Your task to perform on an android device: Add corsair k70 to the cart on bestbuy.com, then select checkout. Image 0: 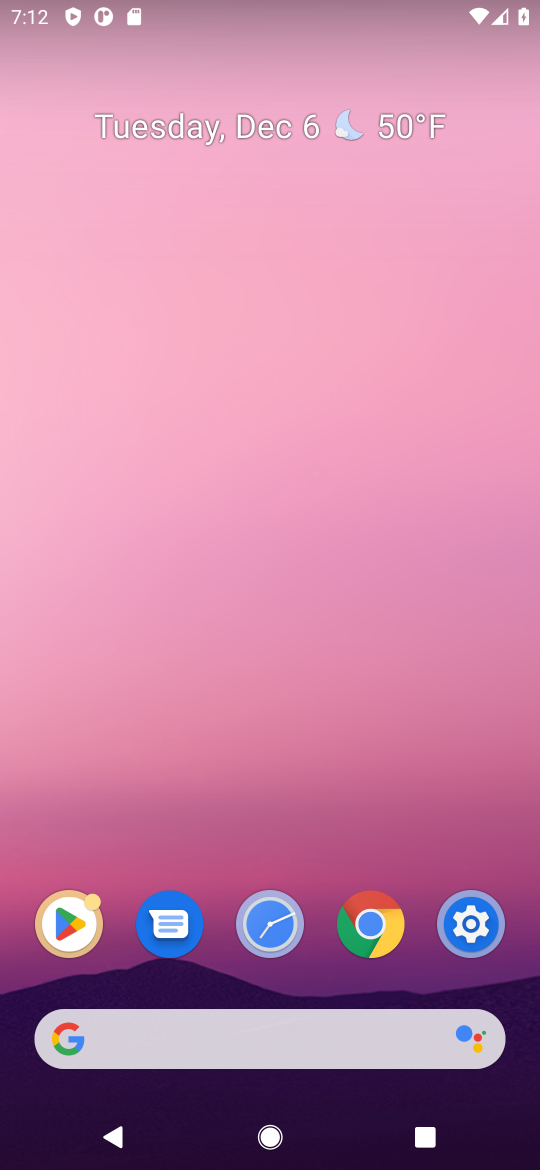
Step 0: click (227, 1037)
Your task to perform on an android device: Add corsair k70 to the cart on bestbuy.com, then select checkout. Image 1: 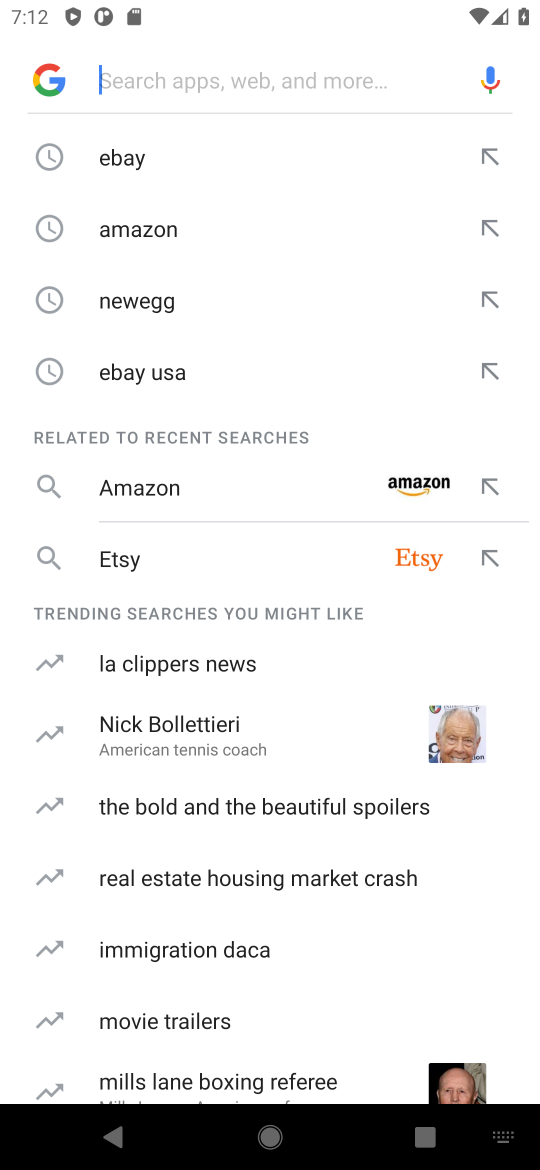
Step 1: type "bestbuy"
Your task to perform on an android device: Add corsair k70 to the cart on bestbuy.com, then select checkout. Image 2: 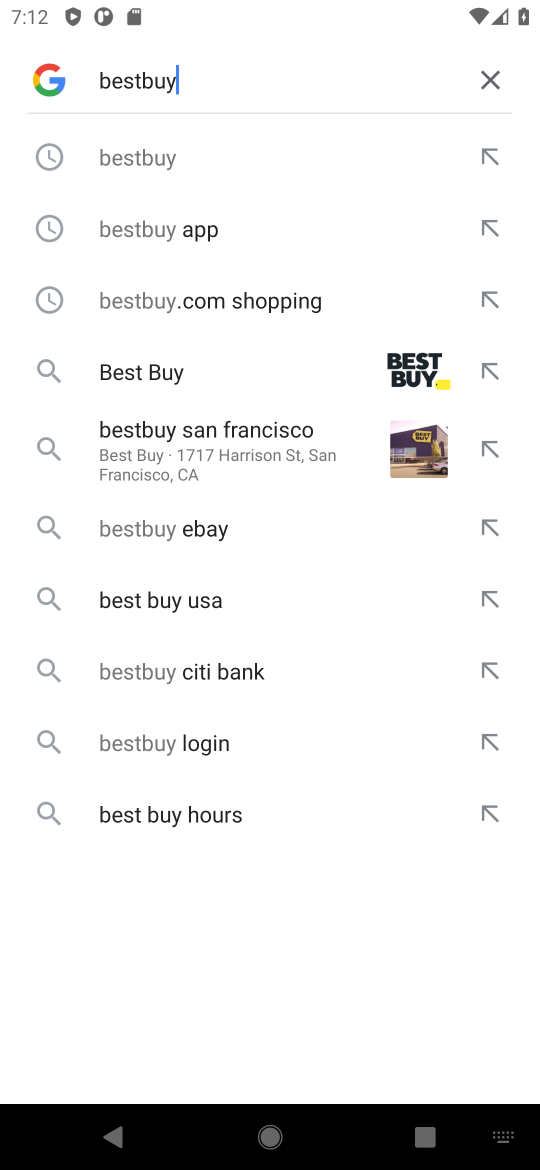
Step 2: click (90, 153)
Your task to perform on an android device: Add corsair k70 to the cart on bestbuy.com, then select checkout. Image 3: 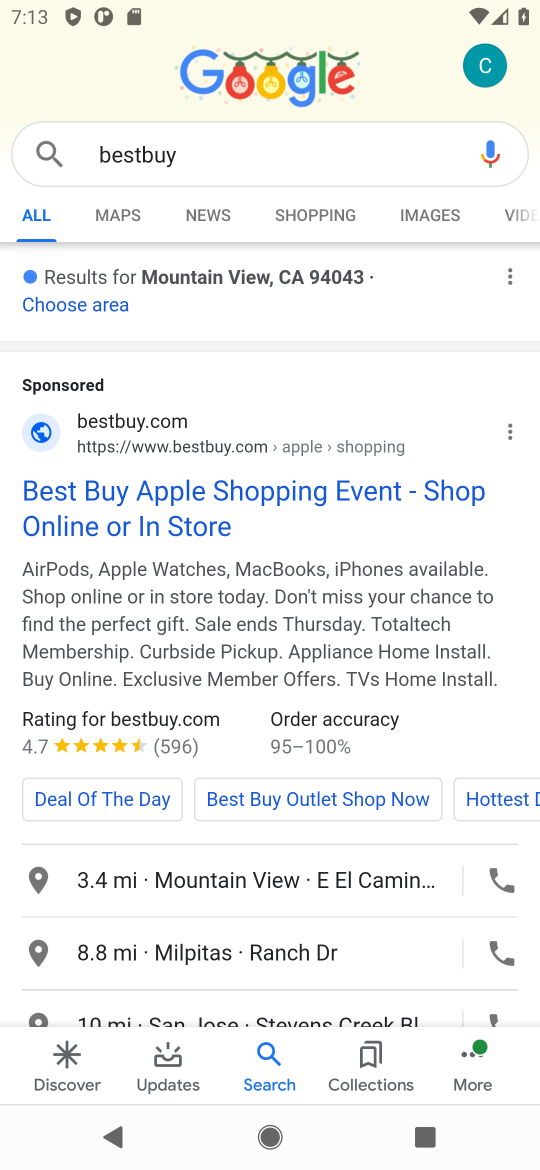
Step 3: click (219, 479)
Your task to perform on an android device: Add corsair k70 to the cart on bestbuy.com, then select checkout. Image 4: 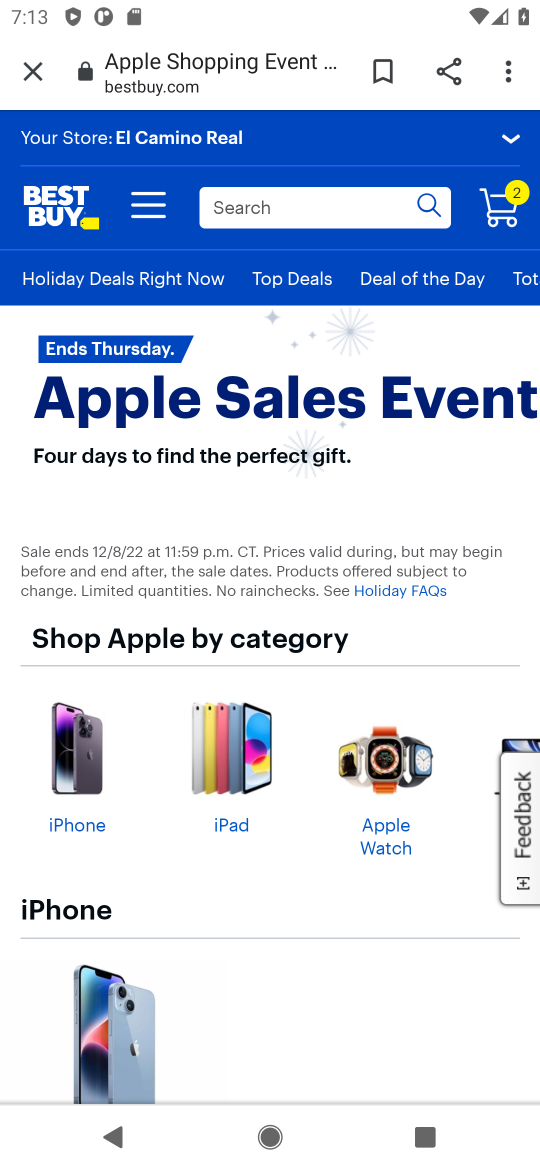
Step 4: click (333, 205)
Your task to perform on an android device: Add corsair k70 to the cart on bestbuy.com, then select checkout. Image 5: 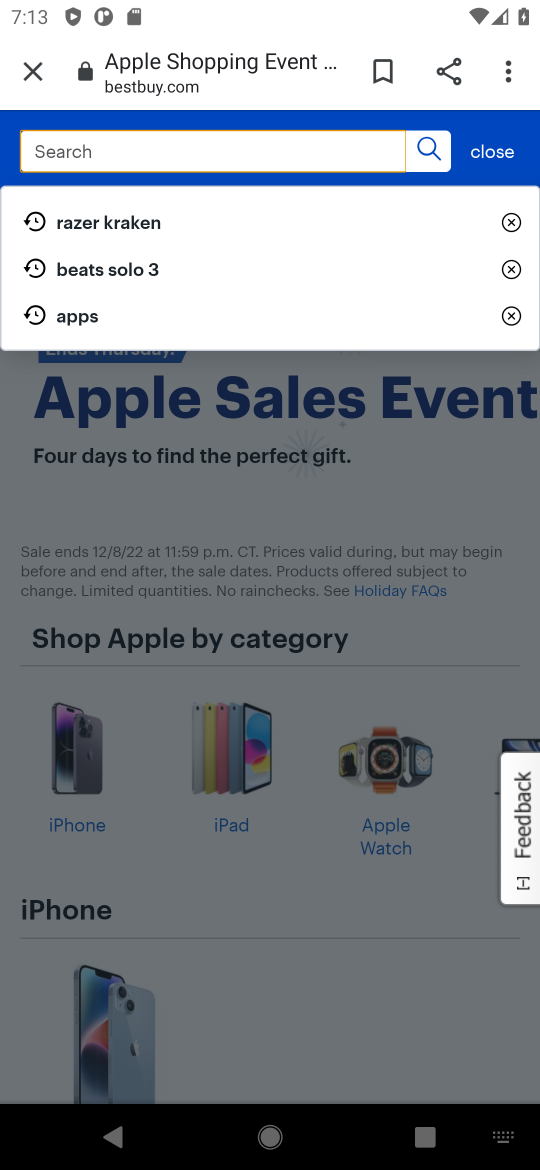
Step 5: type "bestbuy"
Your task to perform on an android device: Add corsair k70 to the cart on bestbuy.com, then select checkout. Image 6: 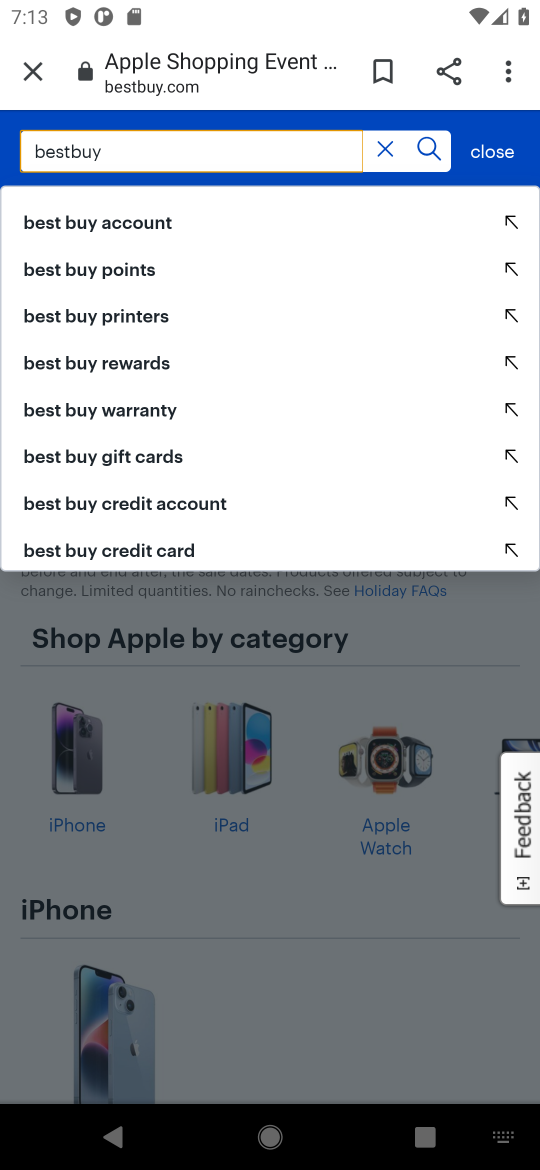
Step 6: task complete